Your task to perform on an android device: toggle show notifications on the lock screen Image 0: 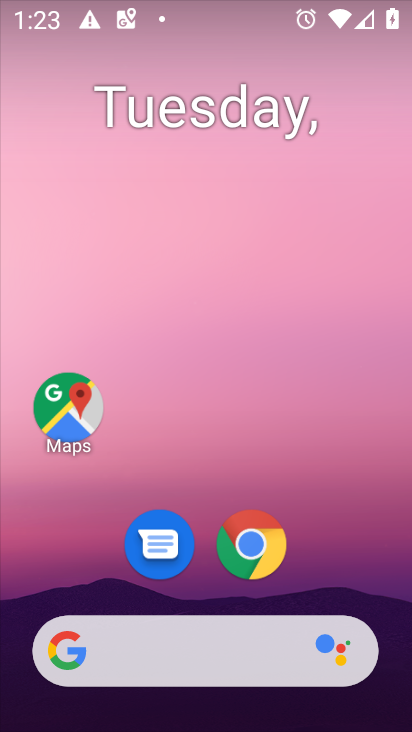
Step 0: drag from (338, 138) to (340, 96)
Your task to perform on an android device: toggle show notifications on the lock screen Image 1: 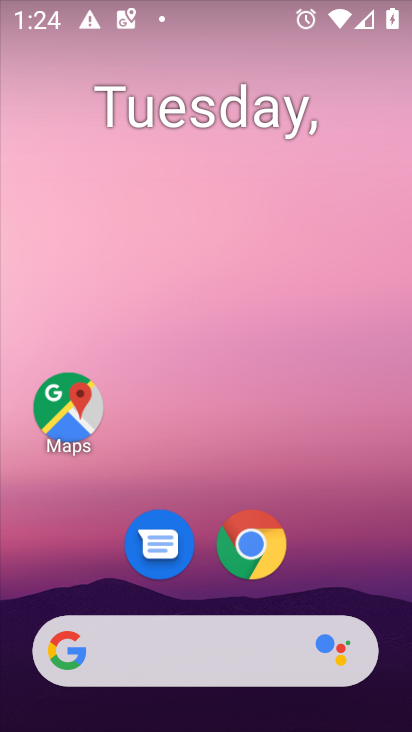
Step 1: drag from (362, 531) to (265, 7)
Your task to perform on an android device: toggle show notifications on the lock screen Image 2: 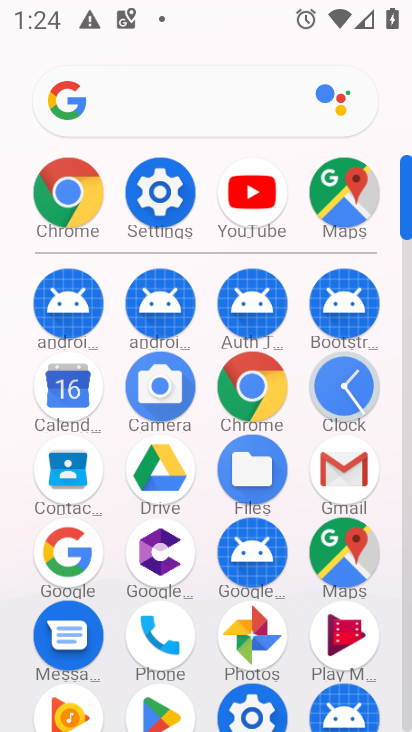
Step 2: click (167, 217)
Your task to perform on an android device: toggle show notifications on the lock screen Image 3: 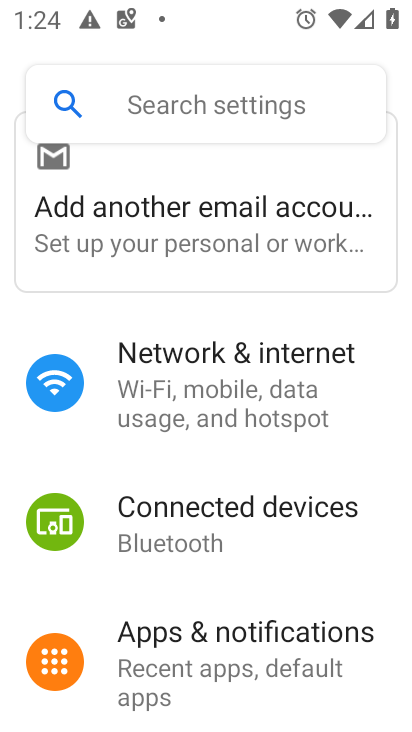
Step 3: click (201, 630)
Your task to perform on an android device: toggle show notifications on the lock screen Image 4: 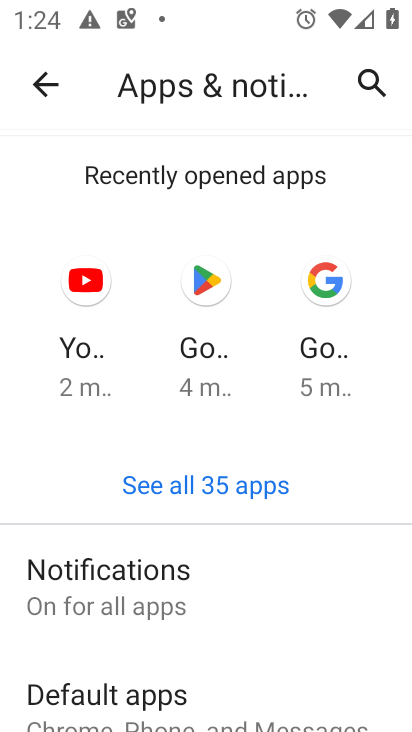
Step 4: click (183, 598)
Your task to perform on an android device: toggle show notifications on the lock screen Image 5: 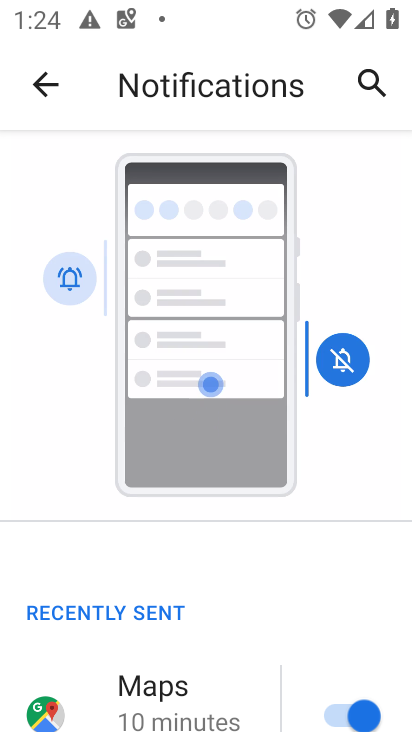
Step 5: drag from (235, 657) to (240, 34)
Your task to perform on an android device: toggle show notifications on the lock screen Image 6: 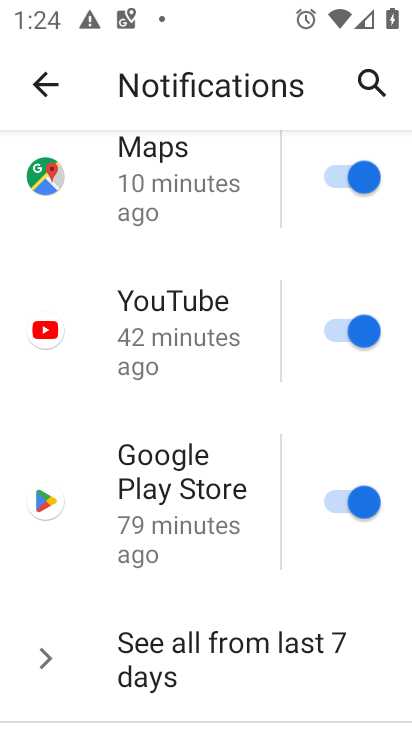
Step 6: drag from (193, 604) to (200, 2)
Your task to perform on an android device: toggle show notifications on the lock screen Image 7: 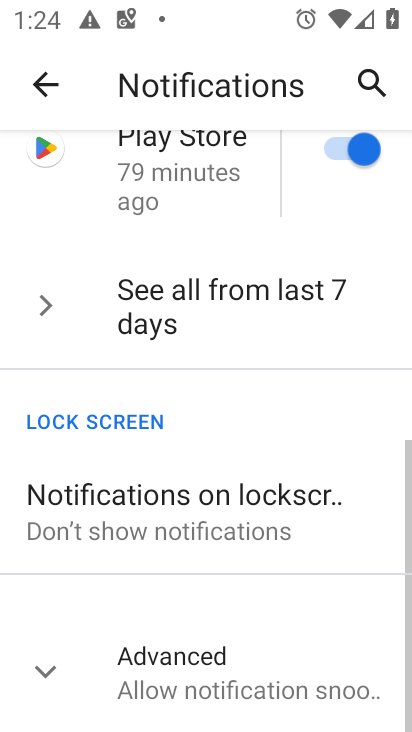
Step 7: click (203, 521)
Your task to perform on an android device: toggle show notifications on the lock screen Image 8: 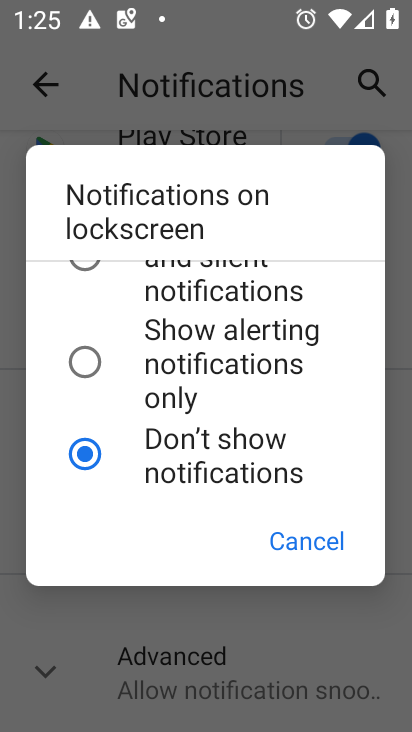
Step 8: click (216, 354)
Your task to perform on an android device: toggle show notifications on the lock screen Image 9: 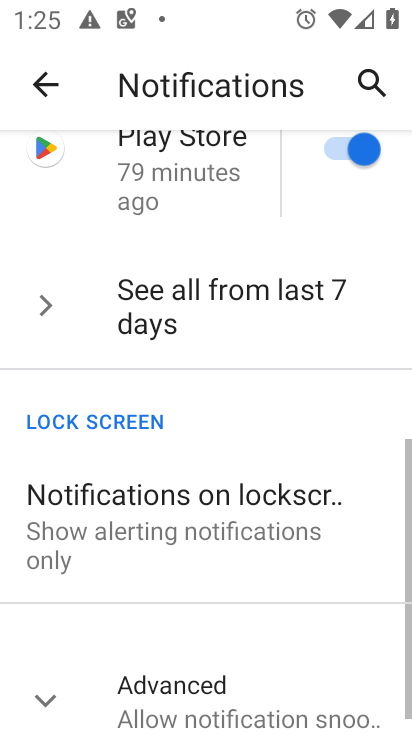
Step 9: task complete